Your task to perform on an android device: Open calendar and show me the second week of next month Image 0: 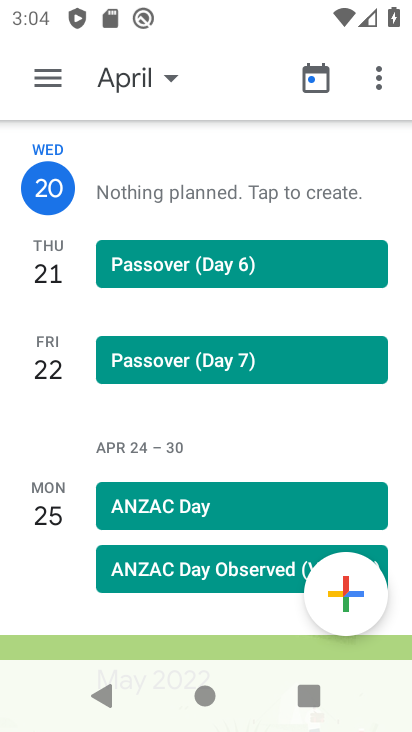
Step 0: press home button
Your task to perform on an android device: Open calendar and show me the second week of next month Image 1: 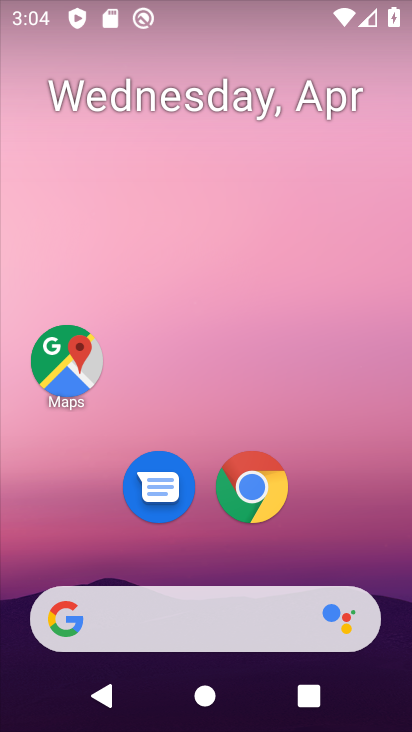
Step 1: drag from (381, 505) to (352, 185)
Your task to perform on an android device: Open calendar and show me the second week of next month Image 2: 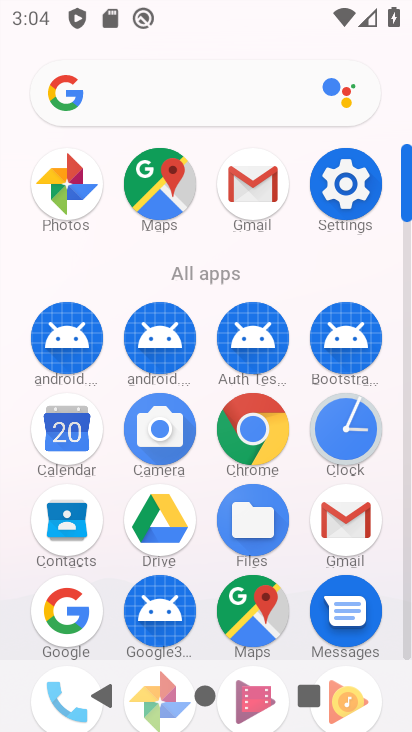
Step 2: click (81, 444)
Your task to perform on an android device: Open calendar and show me the second week of next month Image 3: 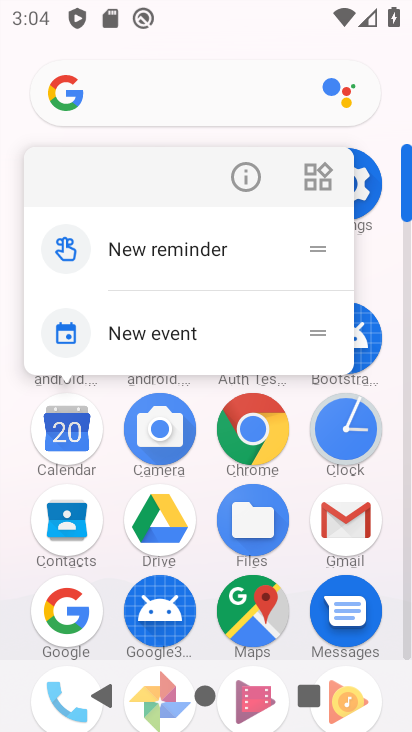
Step 3: click (78, 440)
Your task to perform on an android device: Open calendar and show me the second week of next month Image 4: 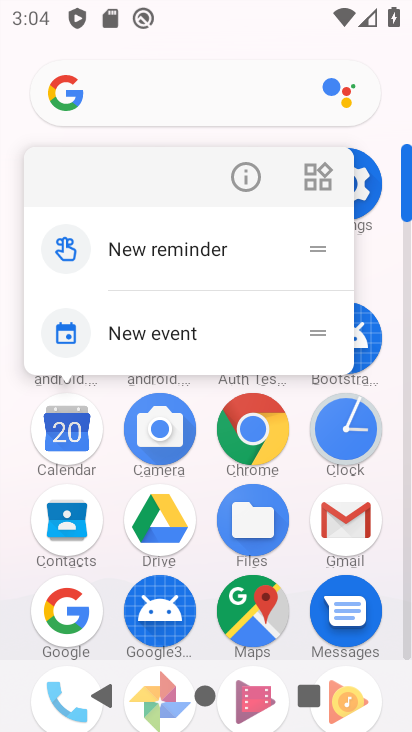
Step 4: click (77, 439)
Your task to perform on an android device: Open calendar and show me the second week of next month Image 5: 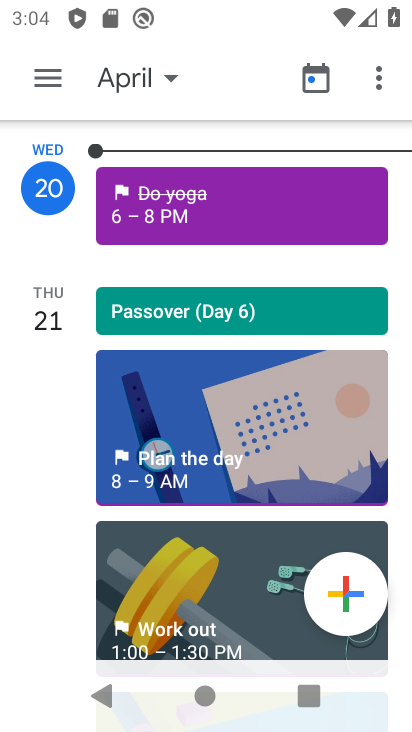
Step 5: click (125, 73)
Your task to perform on an android device: Open calendar and show me the second week of next month Image 6: 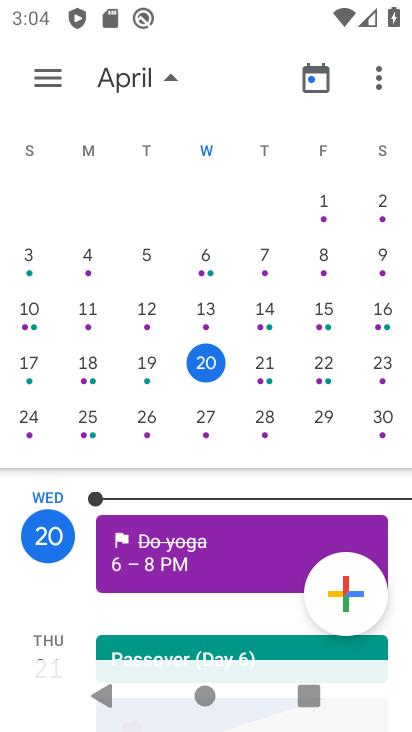
Step 6: task complete